Your task to perform on an android device: Open wifi settings Image 0: 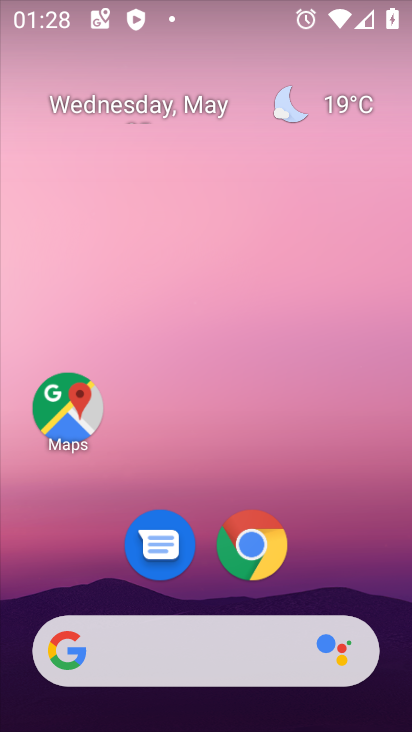
Step 0: drag from (343, 527) to (305, 87)
Your task to perform on an android device: Open wifi settings Image 1: 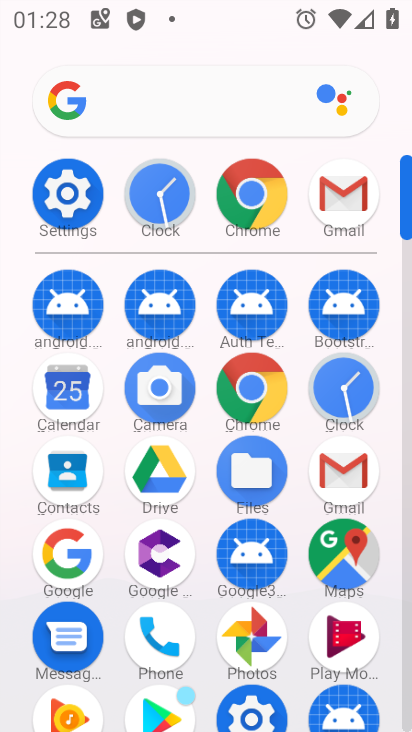
Step 1: click (59, 183)
Your task to perform on an android device: Open wifi settings Image 2: 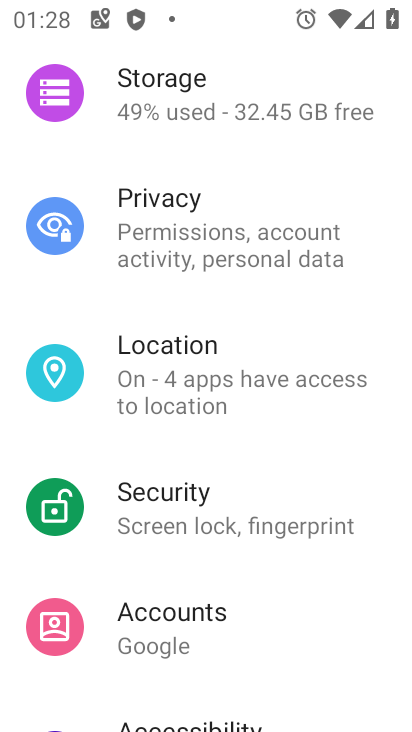
Step 2: drag from (244, 233) to (264, 638)
Your task to perform on an android device: Open wifi settings Image 3: 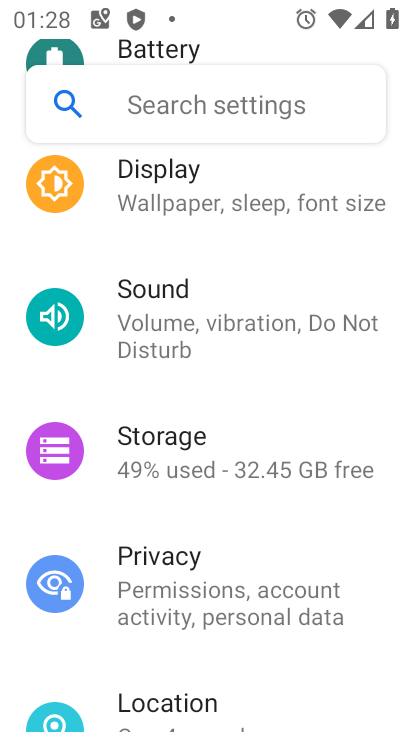
Step 3: drag from (252, 201) to (302, 687)
Your task to perform on an android device: Open wifi settings Image 4: 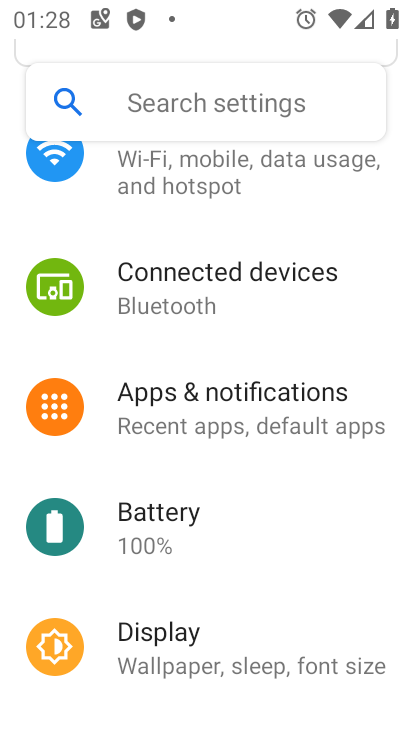
Step 4: click (232, 179)
Your task to perform on an android device: Open wifi settings Image 5: 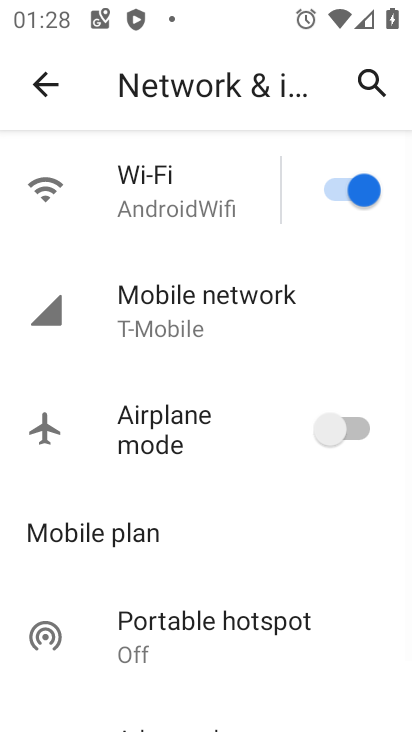
Step 5: click (222, 189)
Your task to perform on an android device: Open wifi settings Image 6: 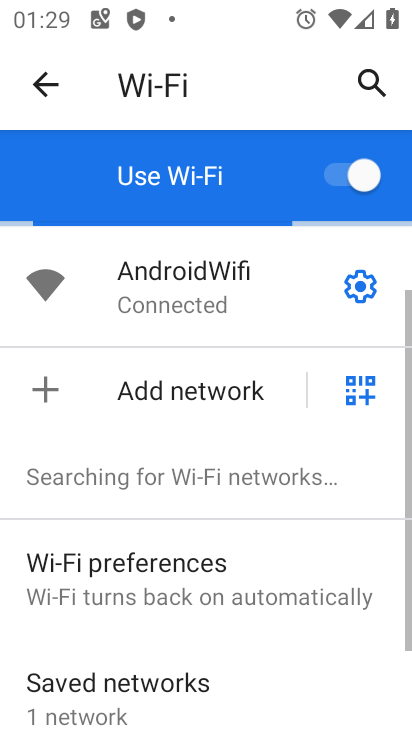
Step 6: click (374, 291)
Your task to perform on an android device: Open wifi settings Image 7: 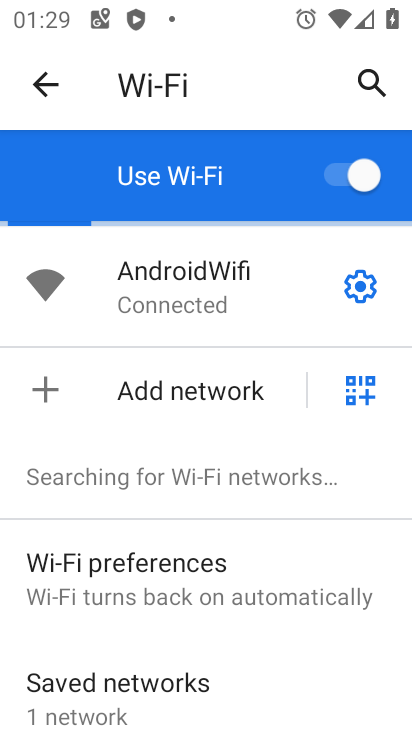
Step 7: click (349, 297)
Your task to perform on an android device: Open wifi settings Image 8: 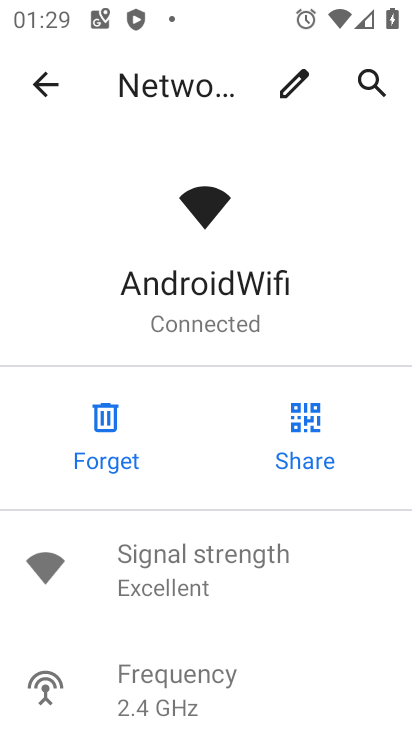
Step 8: task complete